Your task to perform on an android device: Open Android settings Image 0: 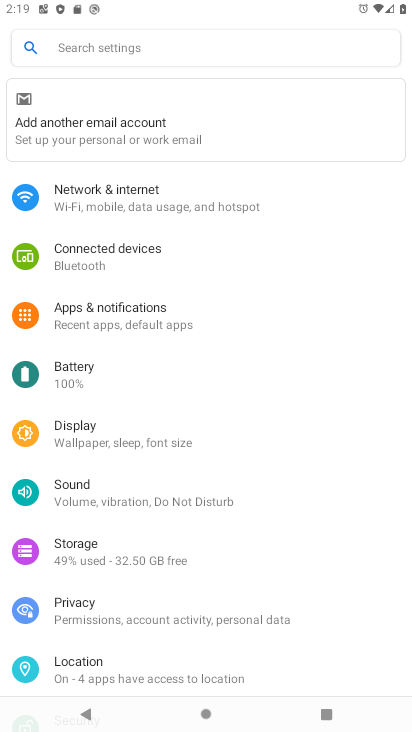
Step 0: drag from (268, 539) to (277, 156)
Your task to perform on an android device: Open Android settings Image 1: 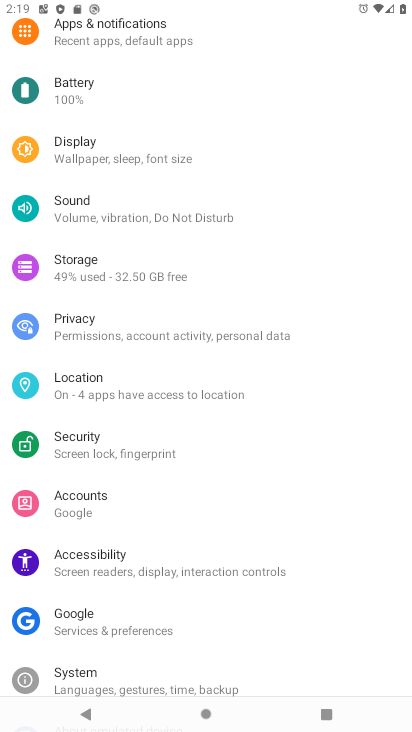
Step 1: task complete